Your task to perform on an android device: Go to Android settings Image 0: 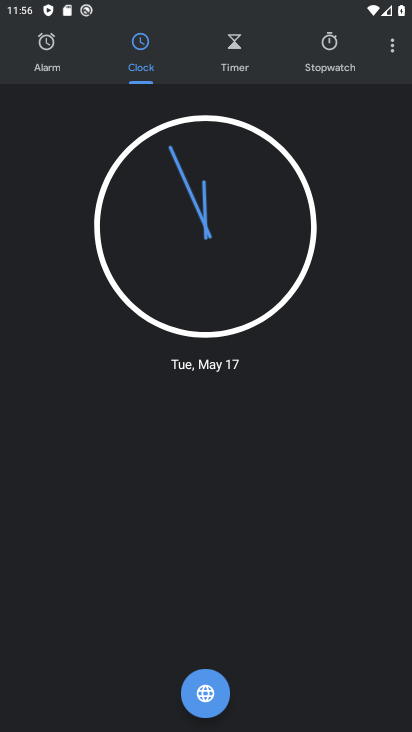
Step 0: press home button
Your task to perform on an android device: Go to Android settings Image 1: 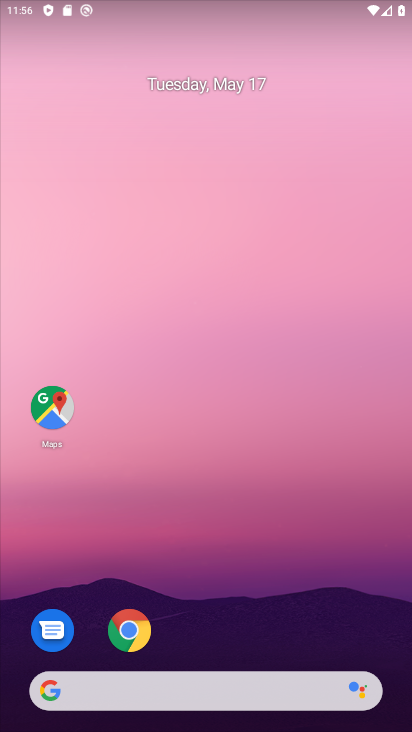
Step 1: drag from (223, 606) to (175, 81)
Your task to perform on an android device: Go to Android settings Image 2: 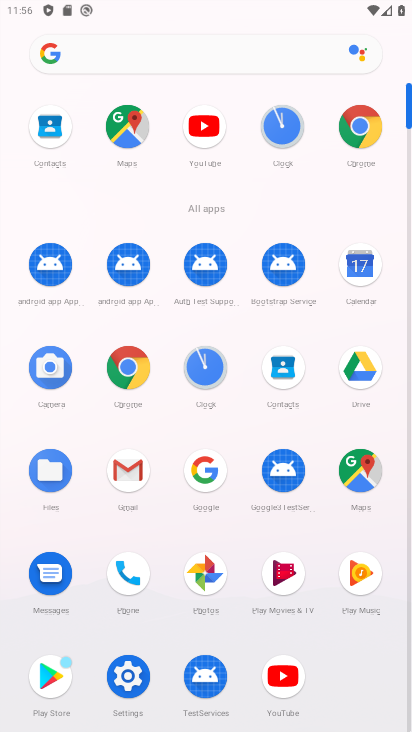
Step 2: click (121, 677)
Your task to perform on an android device: Go to Android settings Image 3: 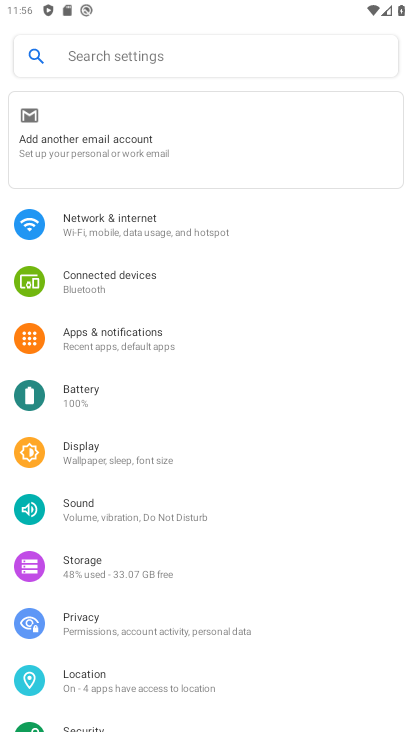
Step 3: task complete